Your task to perform on an android device: turn off translation in the chrome app Image 0: 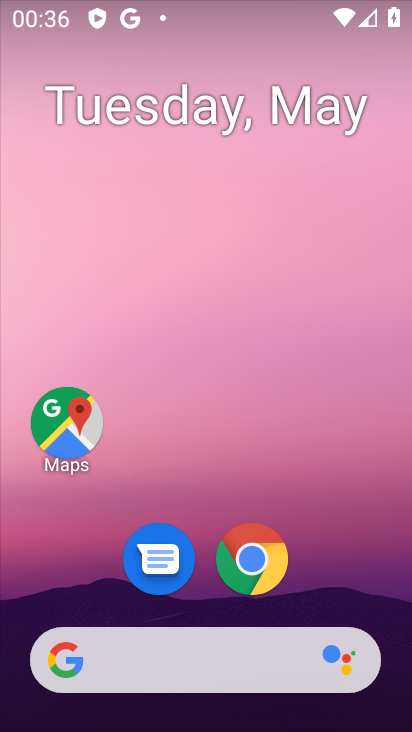
Step 0: click (266, 554)
Your task to perform on an android device: turn off translation in the chrome app Image 1: 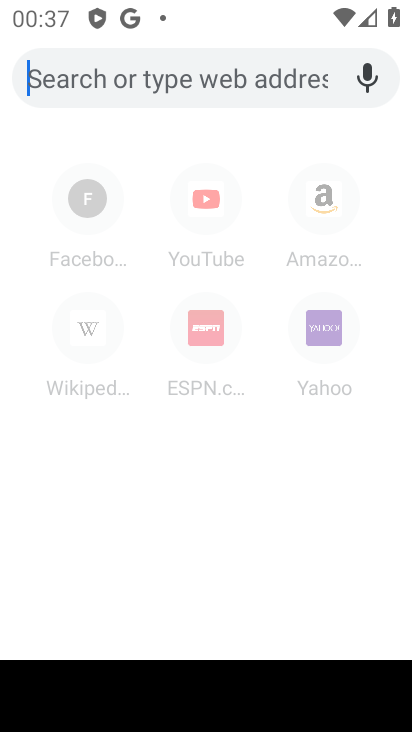
Step 1: press back button
Your task to perform on an android device: turn off translation in the chrome app Image 2: 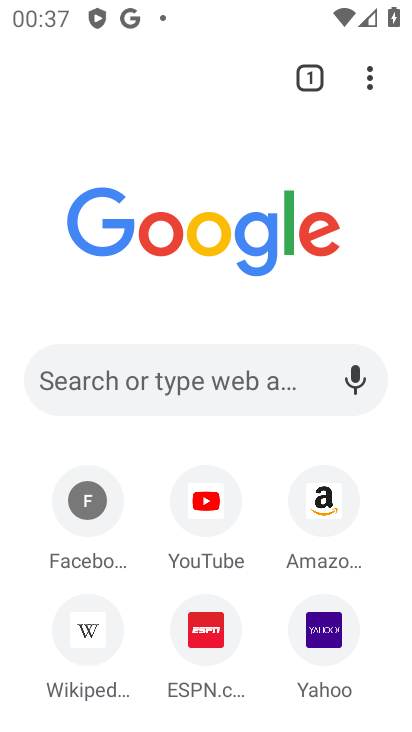
Step 2: click (380, 81)
Your task to perform on an android device: turn off translation in the chrome app Image 3: 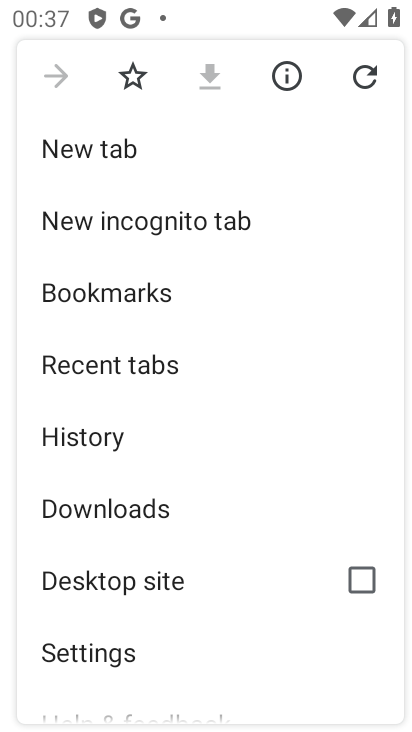
Step 3: drag from (193, 547) to (192, 224)
Your task to perform on an android device: turn off translation in the chrome app Image 4: 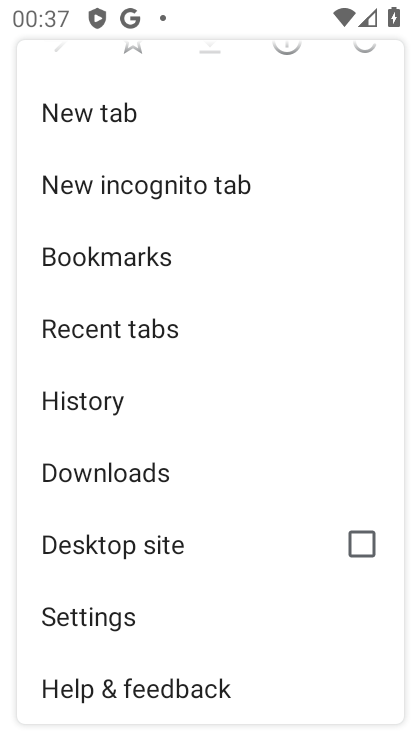
Step 4: click (135, 621)
Your task to perform on an android device: turn off translation in the chrome app Image 5: 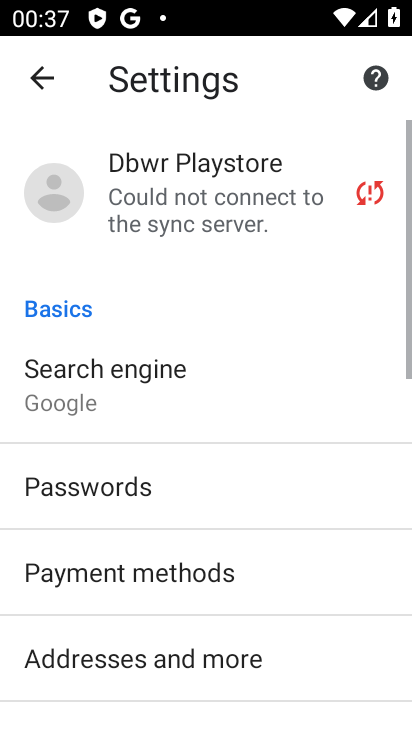
Step 5: drag from (160, 549) to (148, 247)
Your task to perform on an android device: turn off translation in the chrome app Image 6: 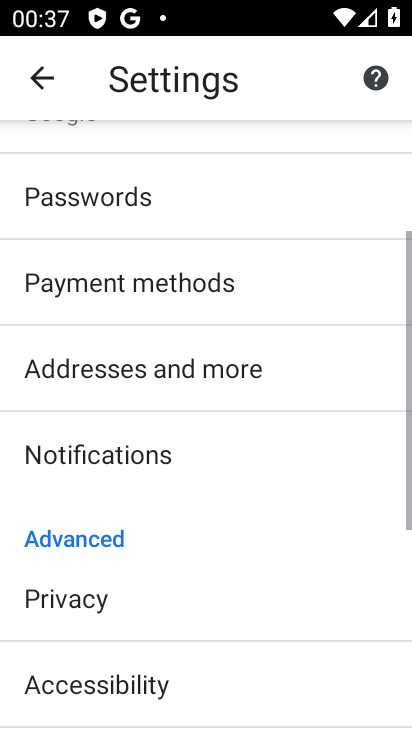
Step 6: drag from (151, 618) to (146, 310)
Your task to perform on an android device: turn off translation in the chrome app Image 7: 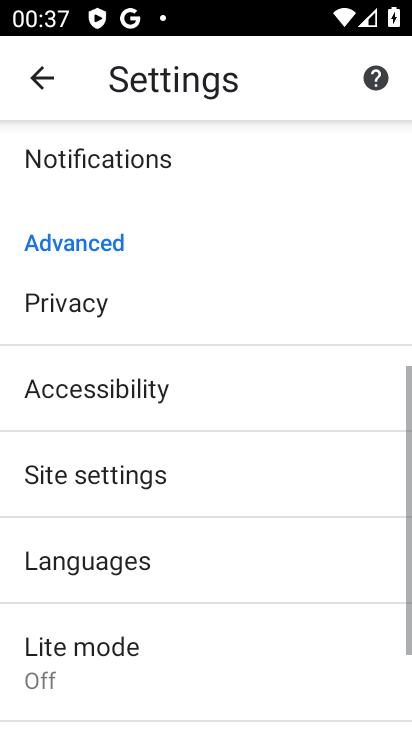
Step 7: drag from (166, 613) to (157, 389)
Your task to perform on an android device: turn off translation in the chrome app Image 8: 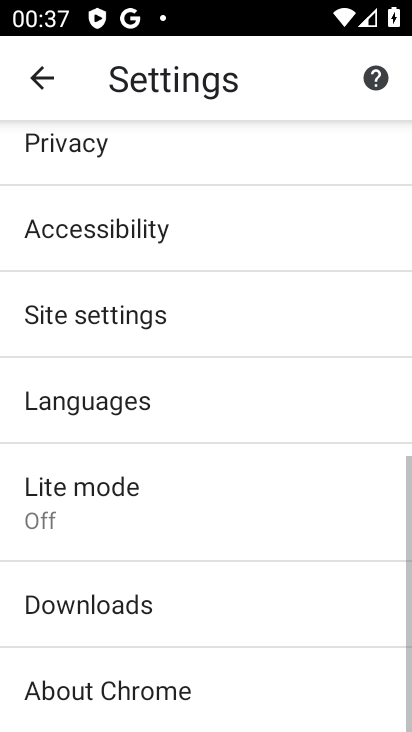
Step 8: click (195, 404)
Your task to perform on an android device: turn off translation in the chrome app Image 9: 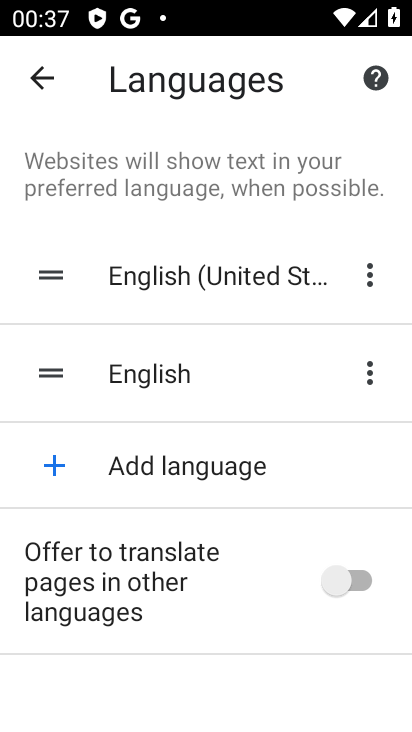
Step 9: task complete